Your task to perform on an android device: Open the Play Movies app and select the watchlist tab. Image 0: 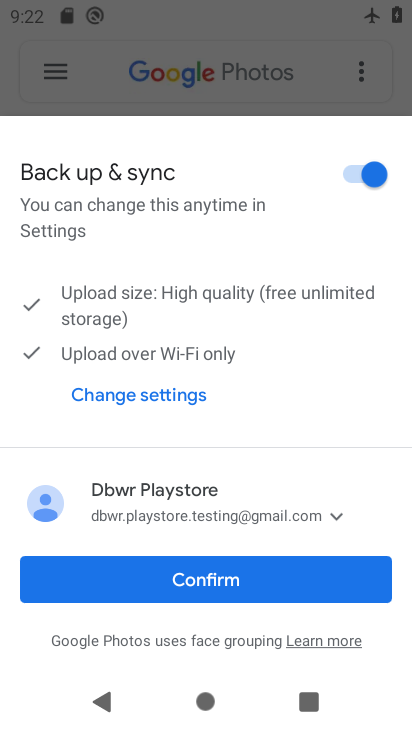
Step 0: press home button
Your task to perform on an android device: Open the Play Movies app and select the watchlist tab. Image 1: 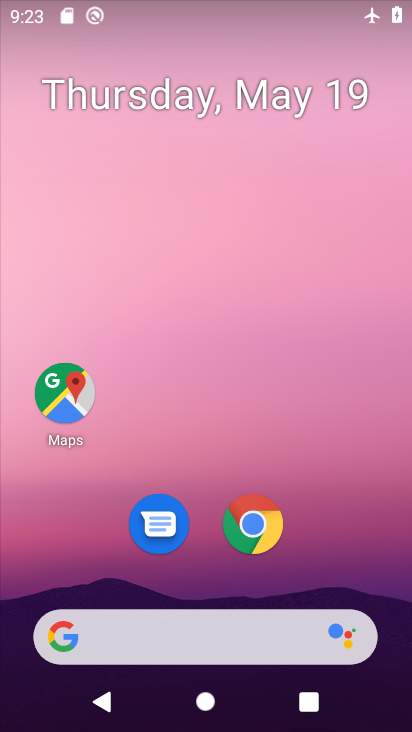
Step 1: drag from (324, 528) to (357, 88)
Your task to perform on an android device: Open the Play Movies app and select the watchlist tab. Image 2: 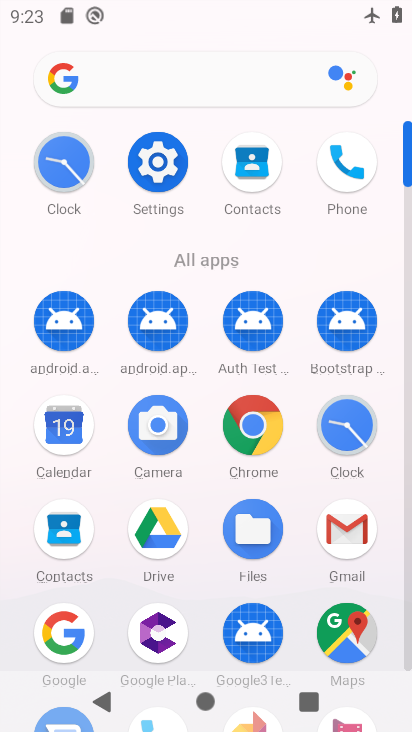
Step 2: drag from (304, 365) to (322, 115)
Your task to perform on an android device: Open the Play Movies app and select the watchlist tab. Image 3: 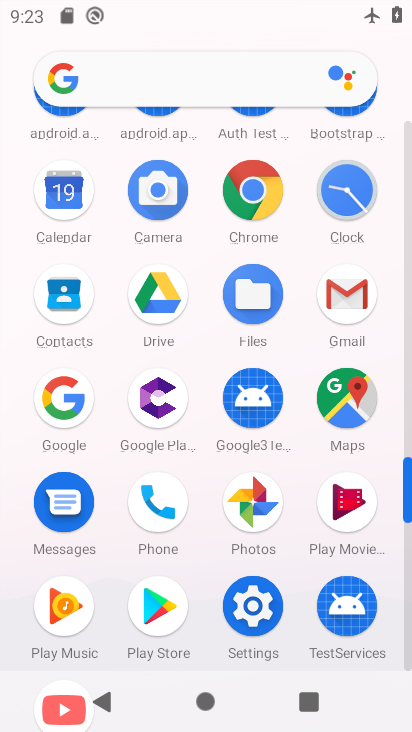
Step 3: click (345, 504)
Your task to perform on an android device: Open the Play Movies app and select the watchlist tab. Image 4: 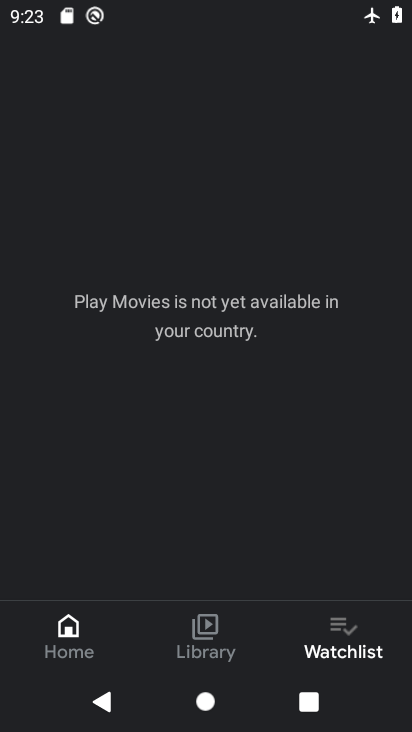
Step 4: click (346, 645)
Your task to perform on an android device: Open the Play Movies app and select the watchlist tab. Image 5: 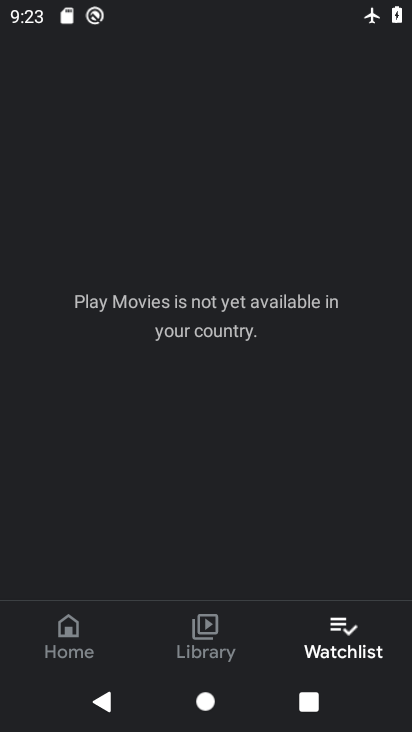
Step 5: task complete